Your task to perform on an android device: Go to Wikipedia Image 0: 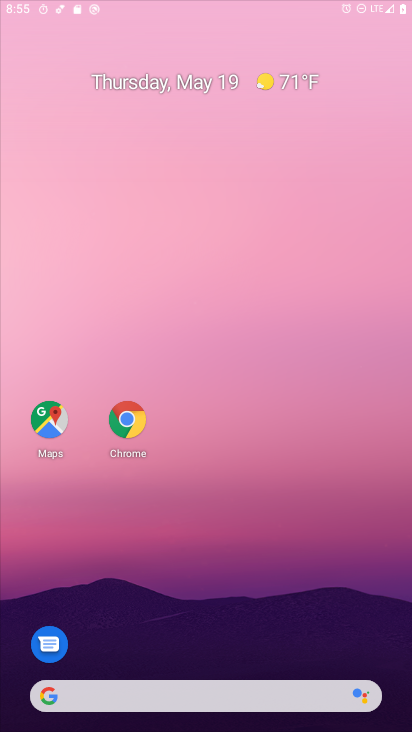
Step 0: press home button
Your task to perform on an android device: Go to Wikipedia Image 1: 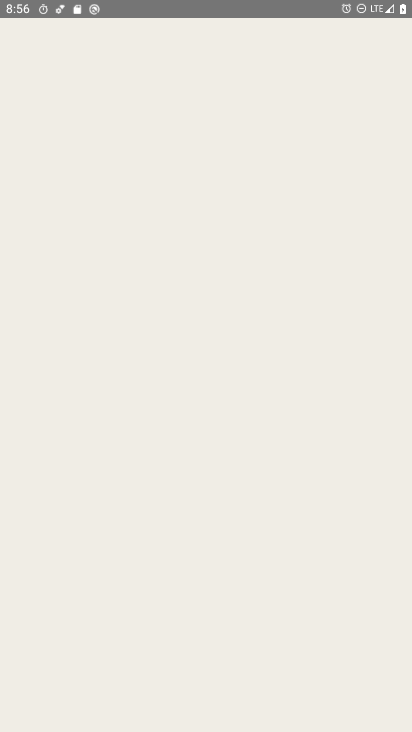
Step 1: drag from (205, 677) to (213, 242)
Your task to perform on an android device: Go to Wikipedia Image 2: 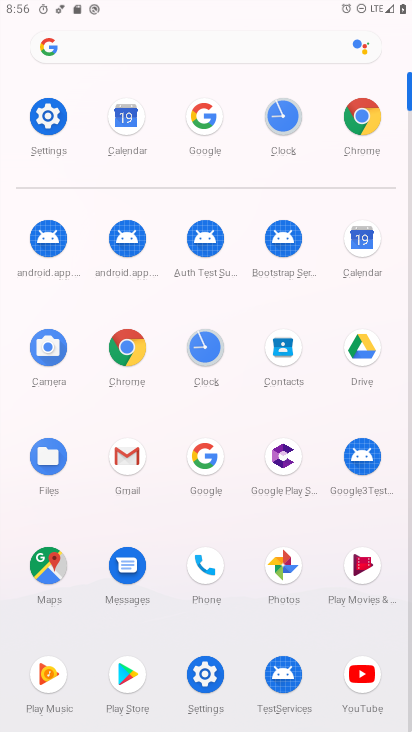
Step 2: click (373, 117)
Your task to perform on an android device: Go to Wikipedia Image 3: 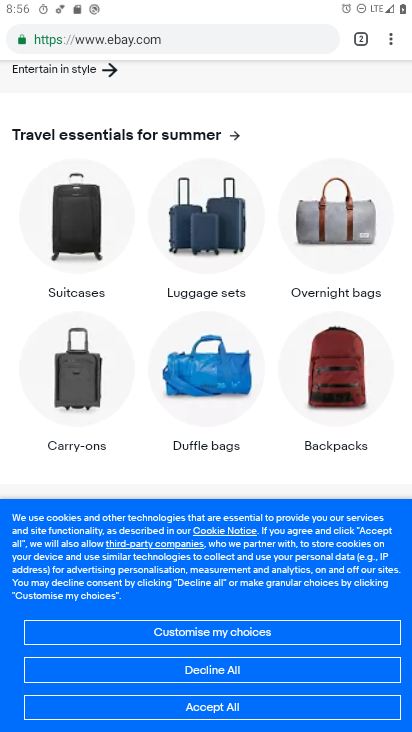
Step 3: click (367, 37)
Your task to perform on an android device: Go to Wikipedia Image 4: 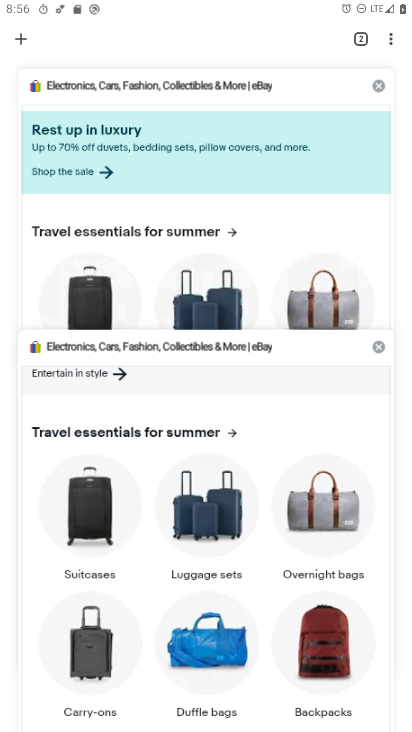
Step 4: click (381, 82)
Your task to perform on an android device: Go to Wikipedia Image 5: 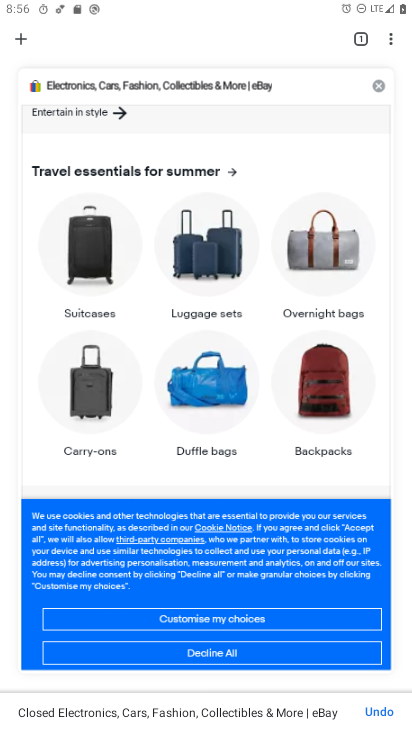
Step 5: click (23, 31)
Your task to perform on an android device: Go to Wikipedia Image 6: 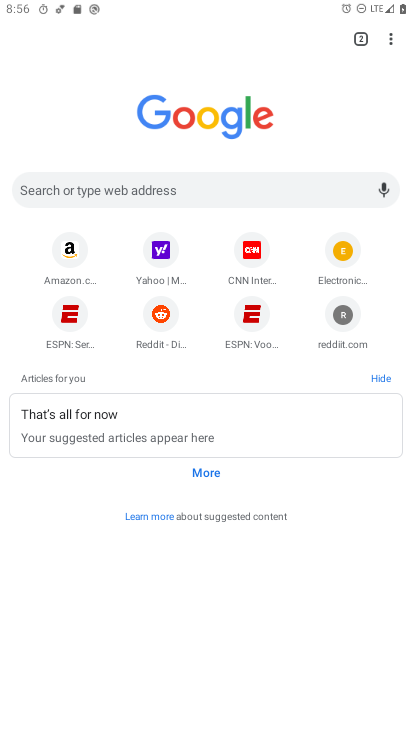
Step 6: click (129, 187)
Your task to perform on an android device: Go to Wikipedia Image 7: 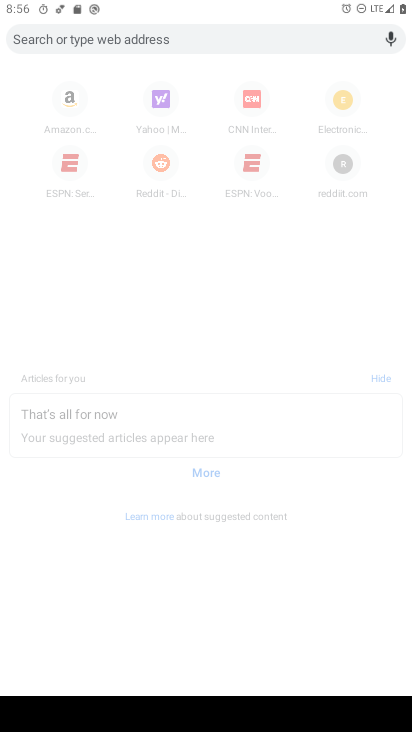
Step 7: type "wikipedia"
Your task to perform on an android device: Go to Wikipedia Image 8: 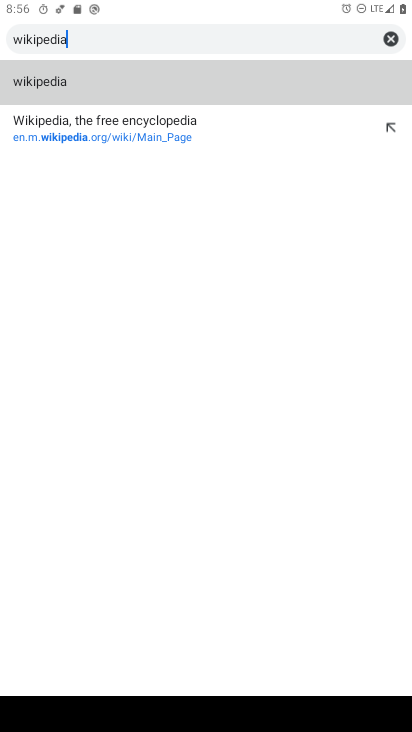
Step 8: click (79, 119)
Your task to perform on an android device: Go to Wikipedia Image 9: 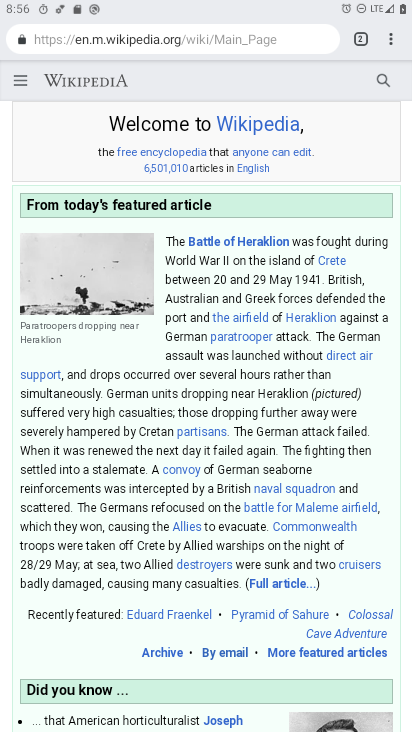
Step 9: task complete